Your task to perform on an android device: Go to settings Image 0: 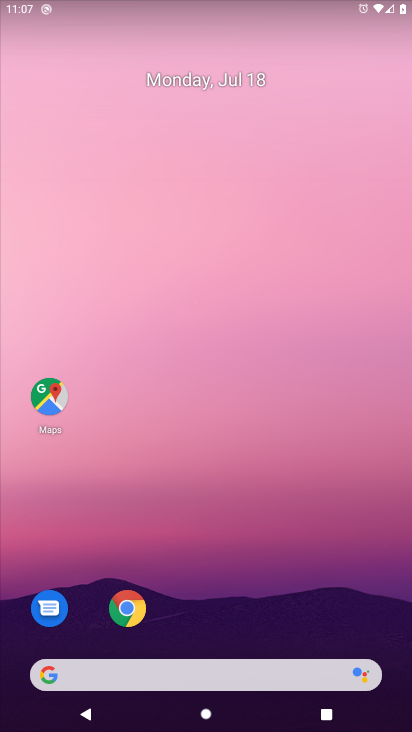
Step 0: drag from (47, 693) to (169, 246)
Your task to perform on an android device: Go to settings Image 1: 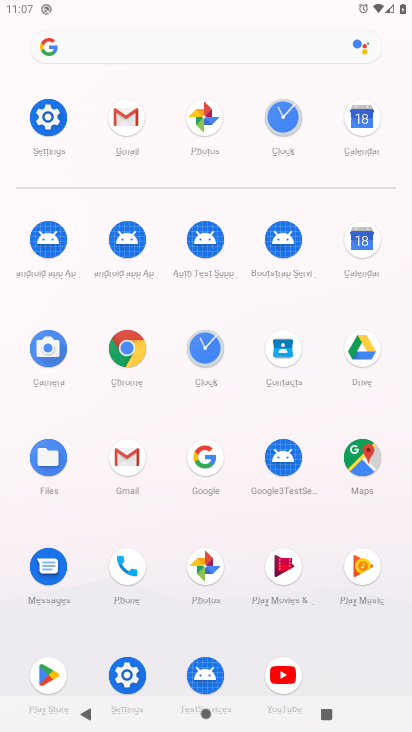
Step 1: click (124, 673)
Your task to perform on an android device: Go to settings Image 2: 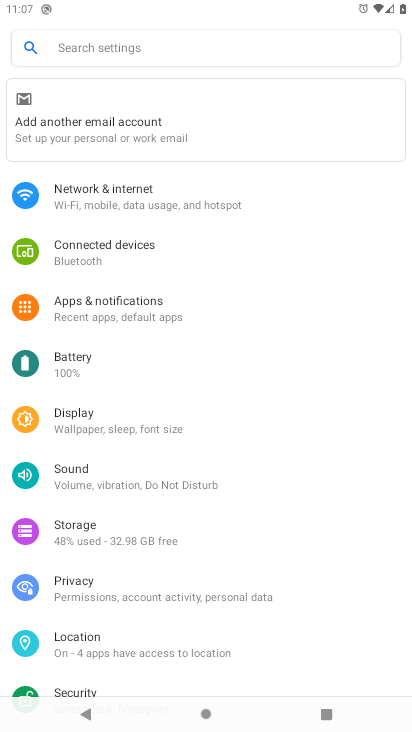
Step 2: task complete